Your task to perform on an android device: Go to Google maps Image 0: 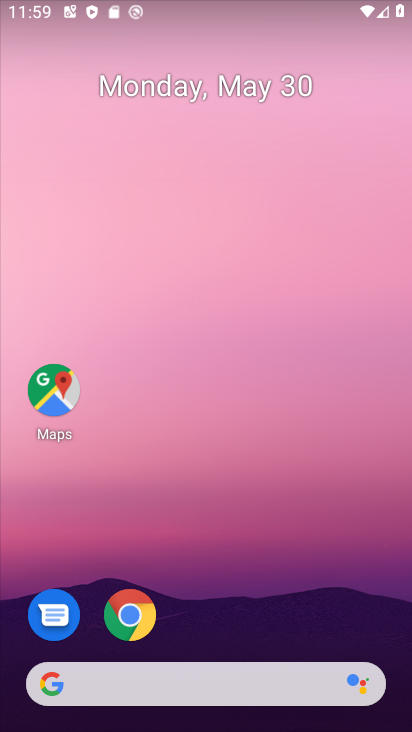
Step 0: drag from (360, 613) to (376, 187)
Your task to perform on an android device: Go to Google maps Image 1: 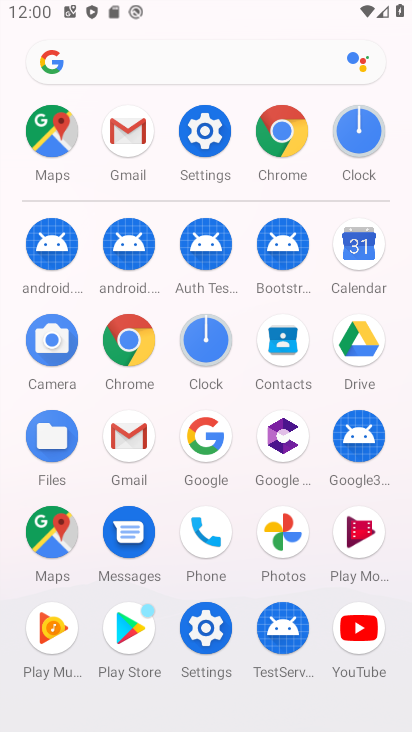
Step 1: click (55, 534)
Your task to perform on an android device: Go to Google maps Image 2: 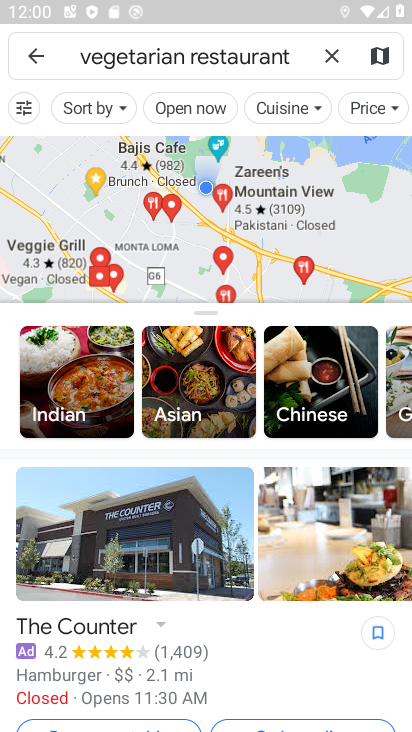
Step 2: task complete